Your task to perform on an android device: Open accessibility settings Image 0: 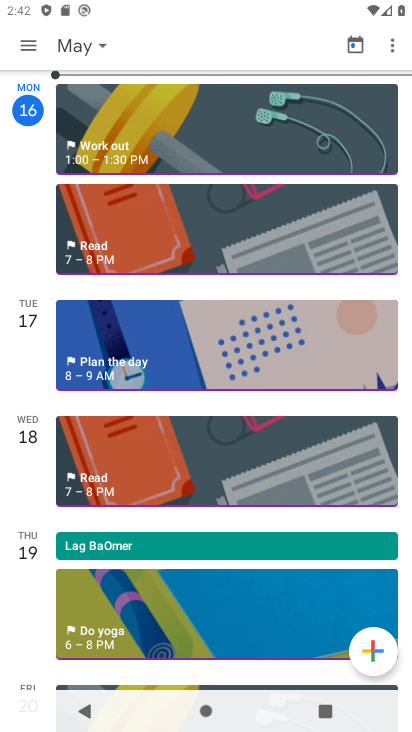
Step 0: press home button
Your task to perform on an android device: Open accessibility settings Image 1: 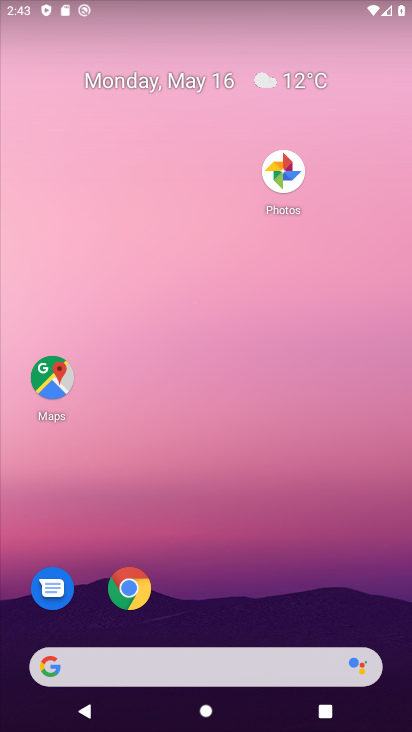
Step 1: drag from (316, 376) to (375, 487)
Your task to perform on an android device: Open accessibility settings Image 2: 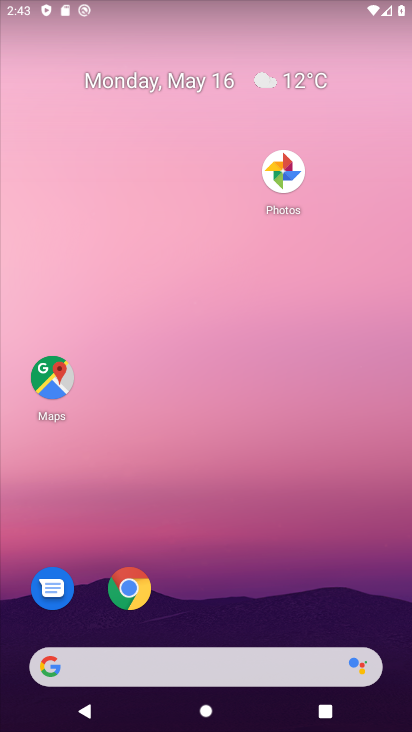
Step 2: click (260, 437)
Your task to perform on an android device: Open accessibility settings Image 3: 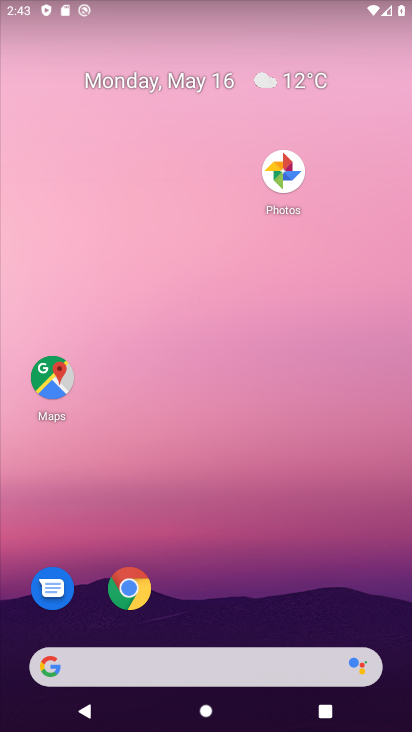
Step 3: drag from (177, 639) to (212, 13)
Your task to perform on an android device: Open accessibility settings Image 4: 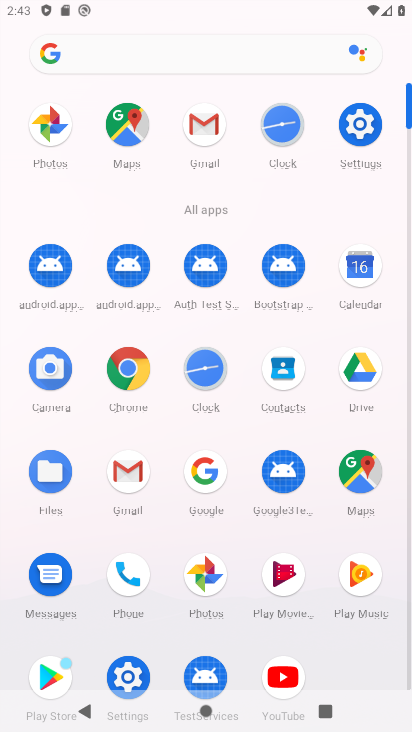
Step 4: click (364, 122)
Your task to perform on an android device: Open accessibility settings Image 5: 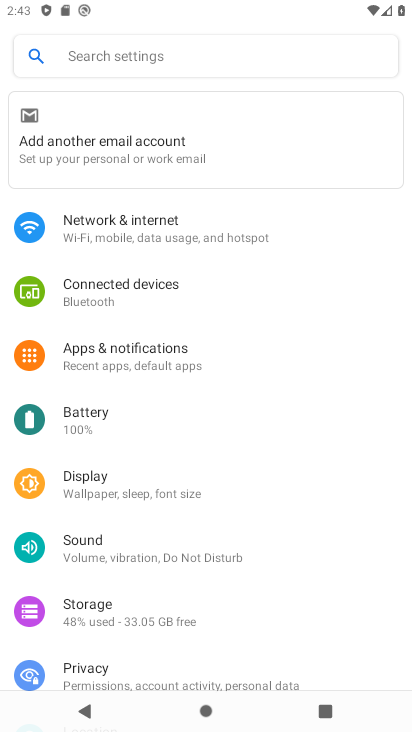
Step 5: drag from (166, 679) to (146, 97)
Your task to perform on an android device: Open accessibility settings Image 6: 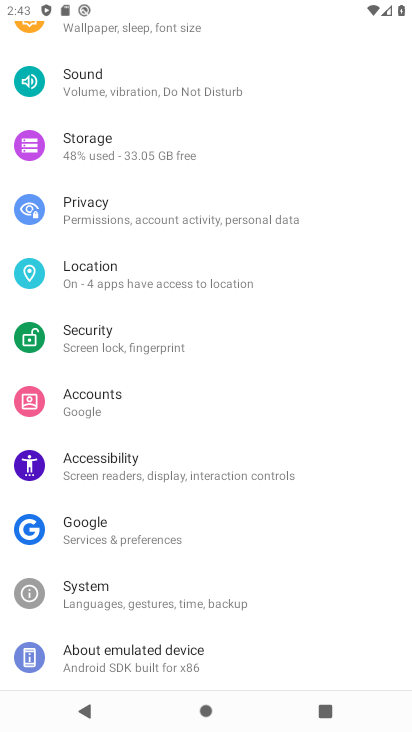
Step 6: click (97, 475)
Your task to perform on an android device: Open accessibility settings Image 7: 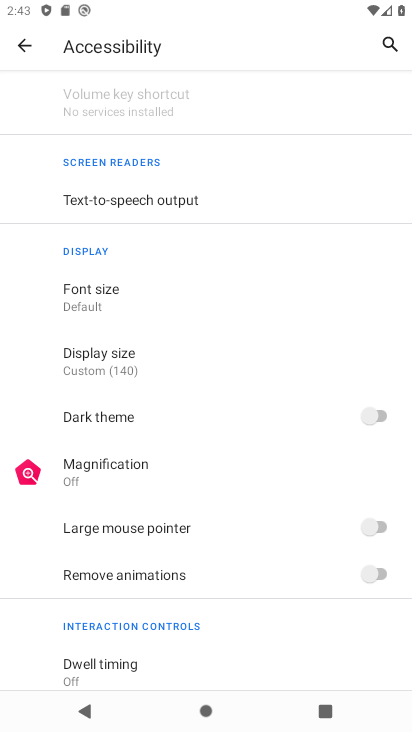
Step 7: task complete